Your task to perform on an android device: What's the weather? Image 0: 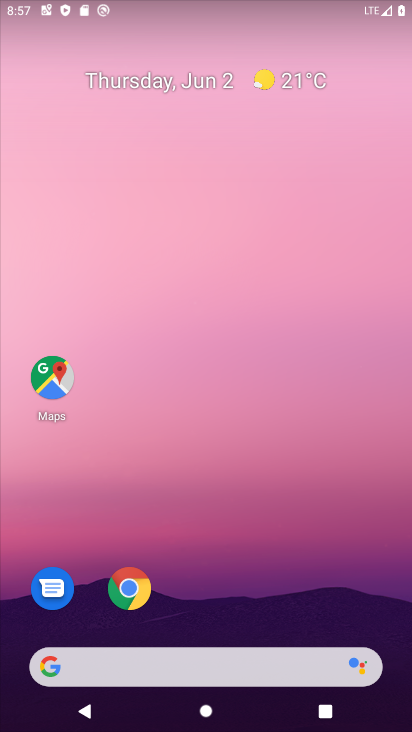
Step 0: drag from (237, 608) to (242, 161)
Your task to perform on an android device: What's the weather? Image 1: 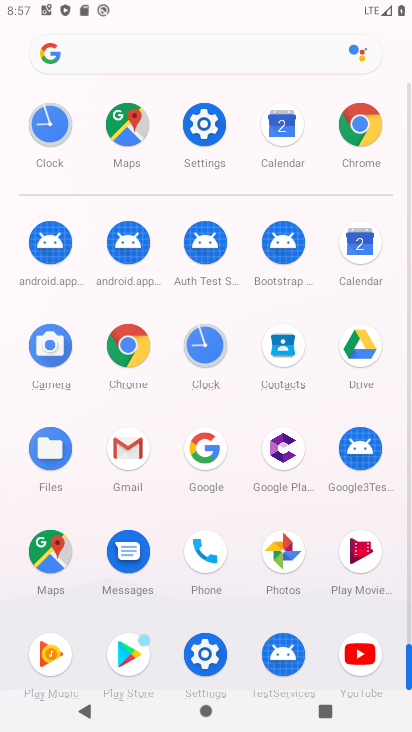
Step 1: click (215, 453)
Your task to perform on an android device: What's the weather? Image 2: 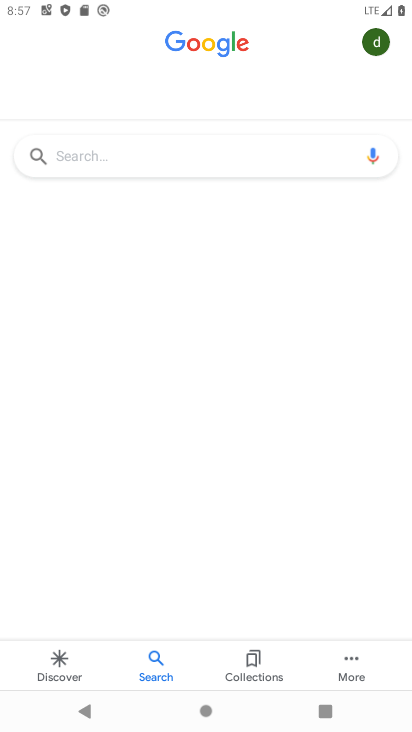
Step 2: click (207, 154)
Your task to perform on an android device: What's the weather? Image 3: 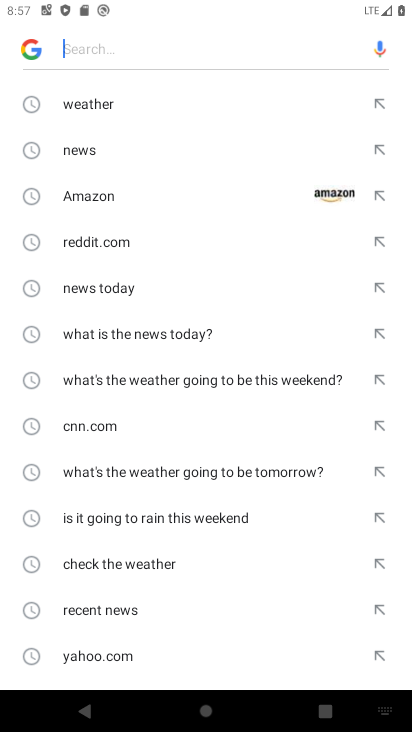
Step 3: click (173, 93)
Your task to perform on an android device: What's the weather? Image 4: 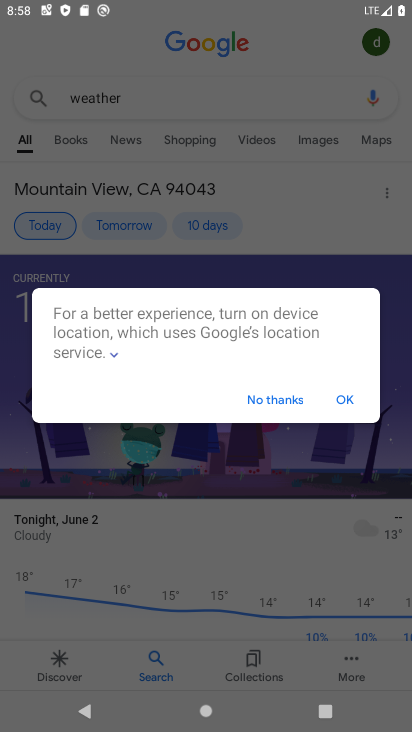
Step 4: click (349, 394)
Your task to perform on an android device: What's the weather? Image 5: 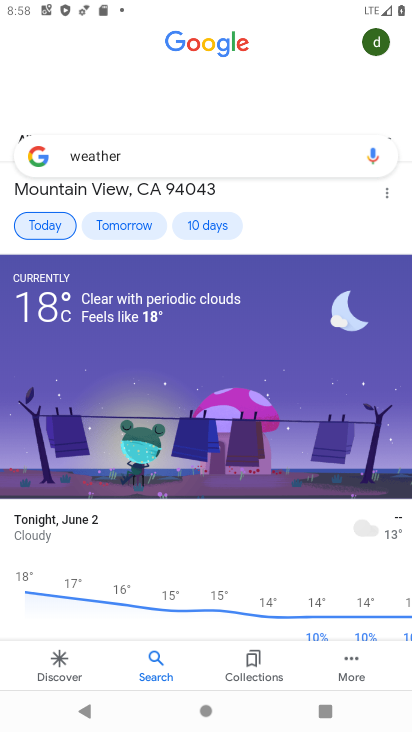
Step 5: task complete